Your task to perform on an android device: Open Google Maps Image 0: 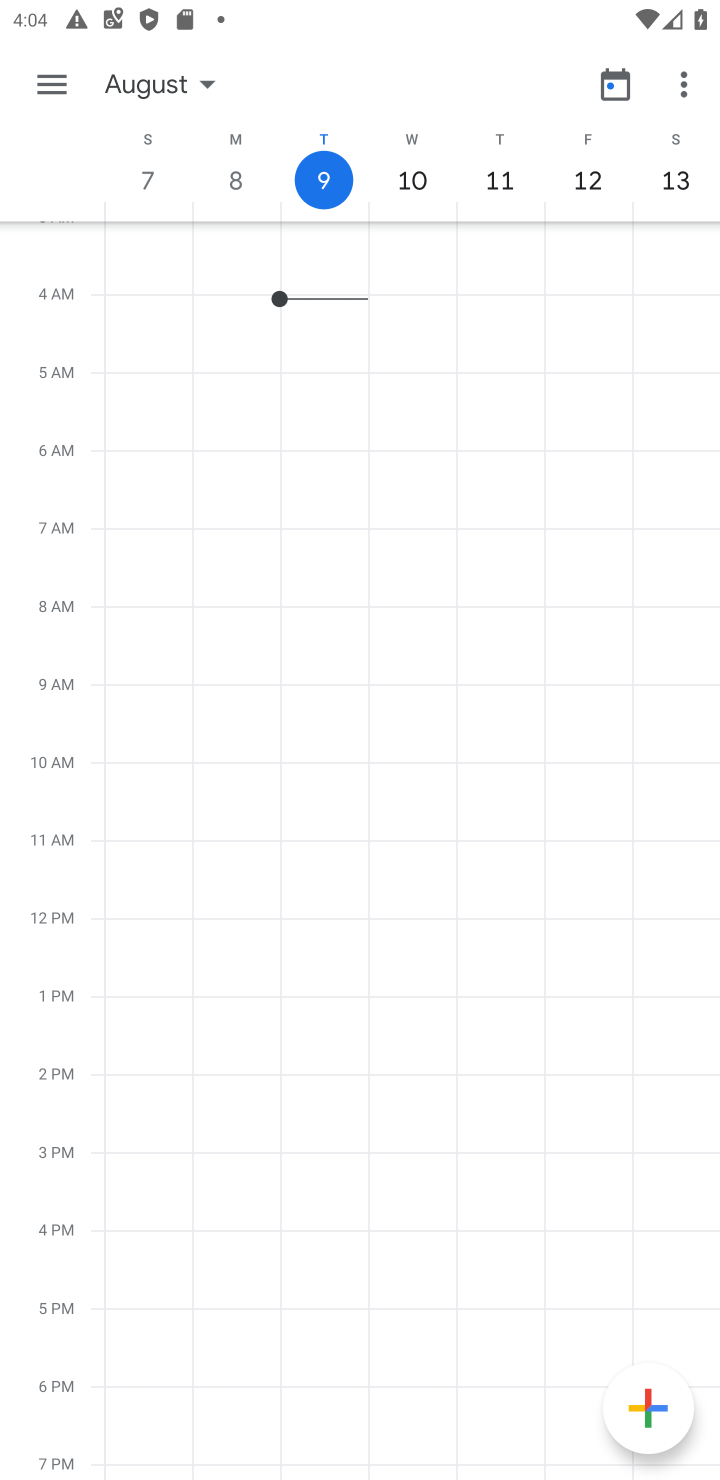
Step 0: press home button
Your task to perform on an android device: Open Google Maps Image 1: 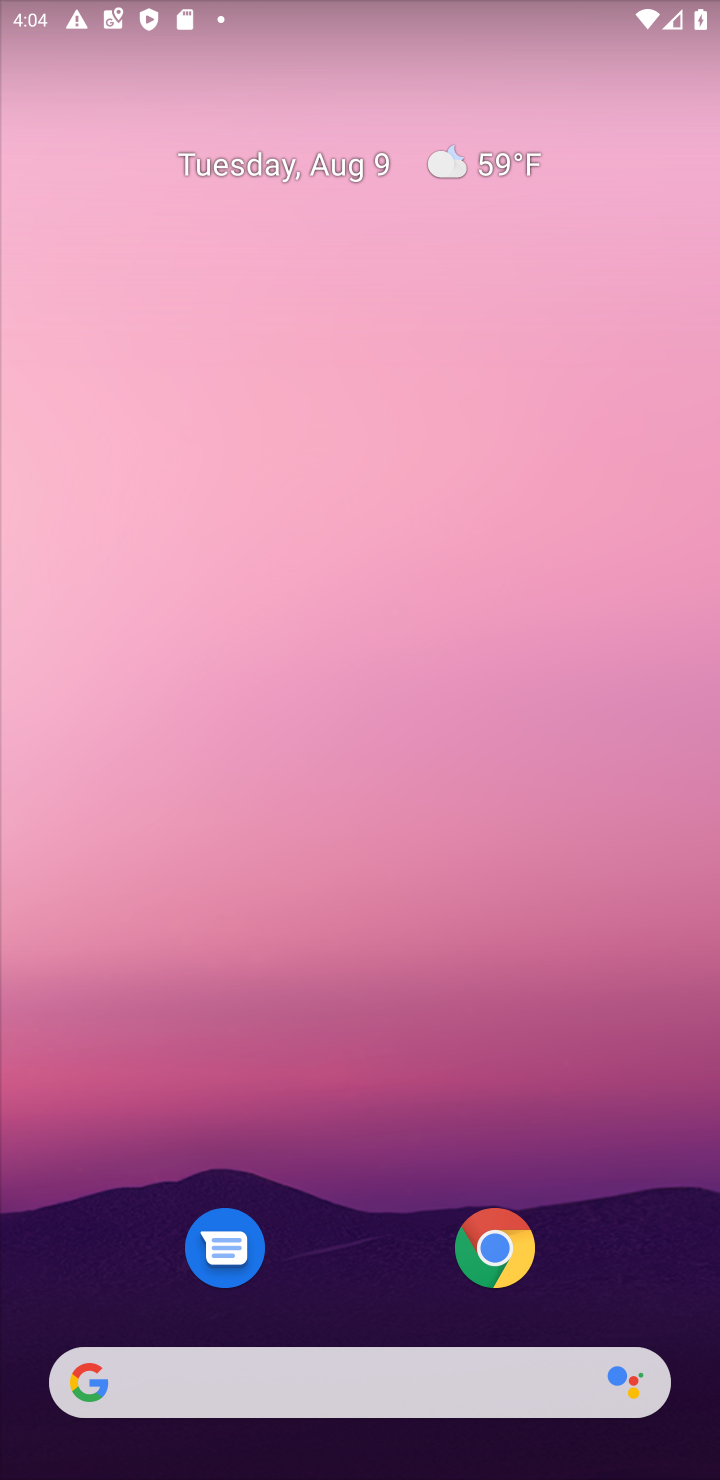
Step 1: drag from (323, 1154) to (31, 242)
Your task to perform on an android device: Open Google Maps Image 2: 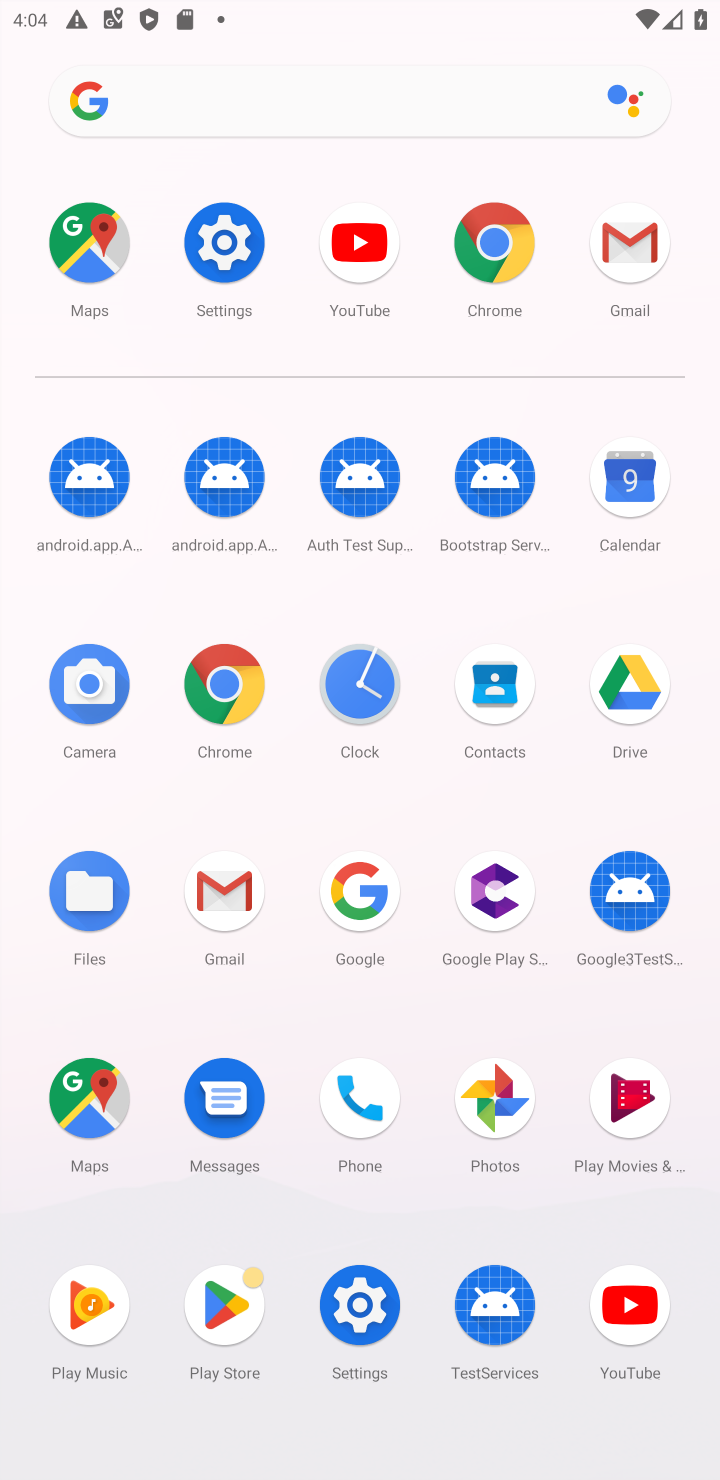
Step 2: click (95, 1113)
Your task to perform on an android device: Open Google Maps Image 3: 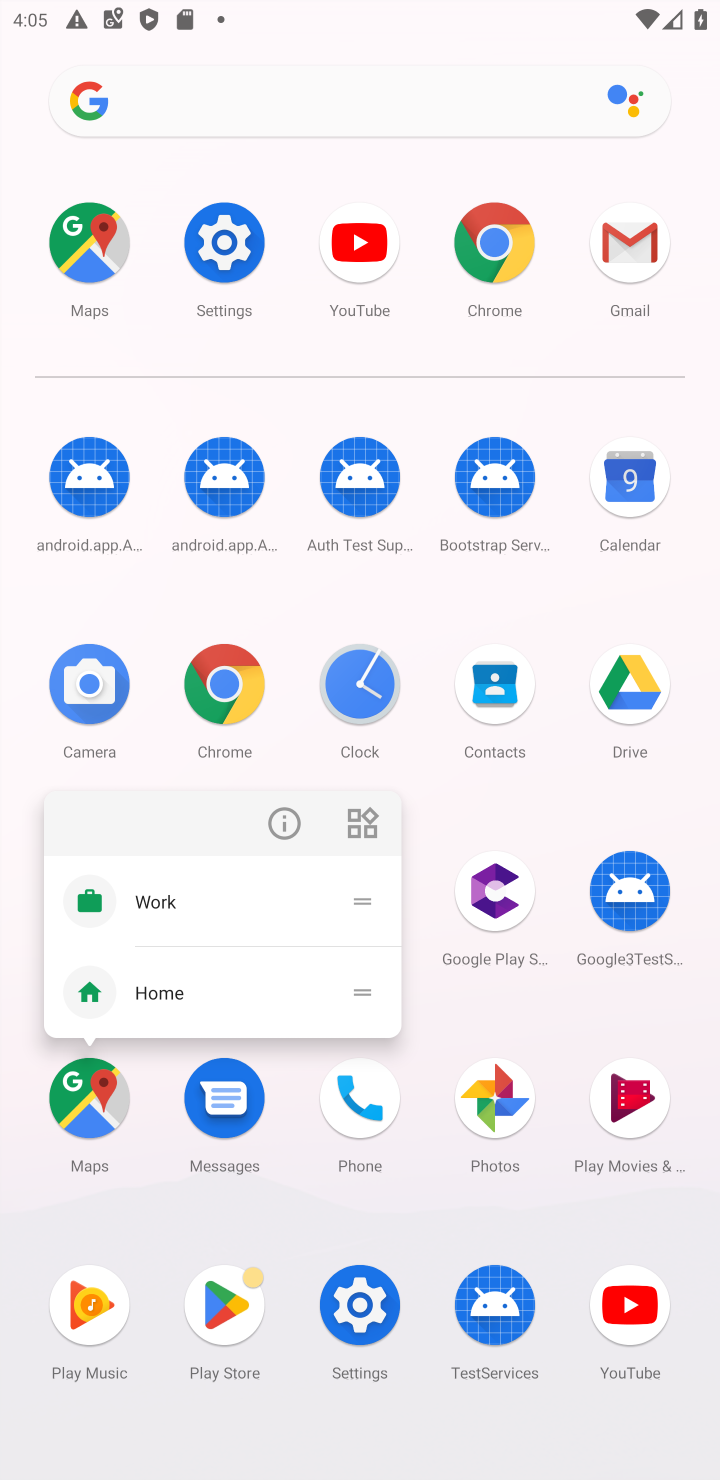
Step 3: click (74, 1098)
Your task to perform on an android device: Open Google Maps Image 4: 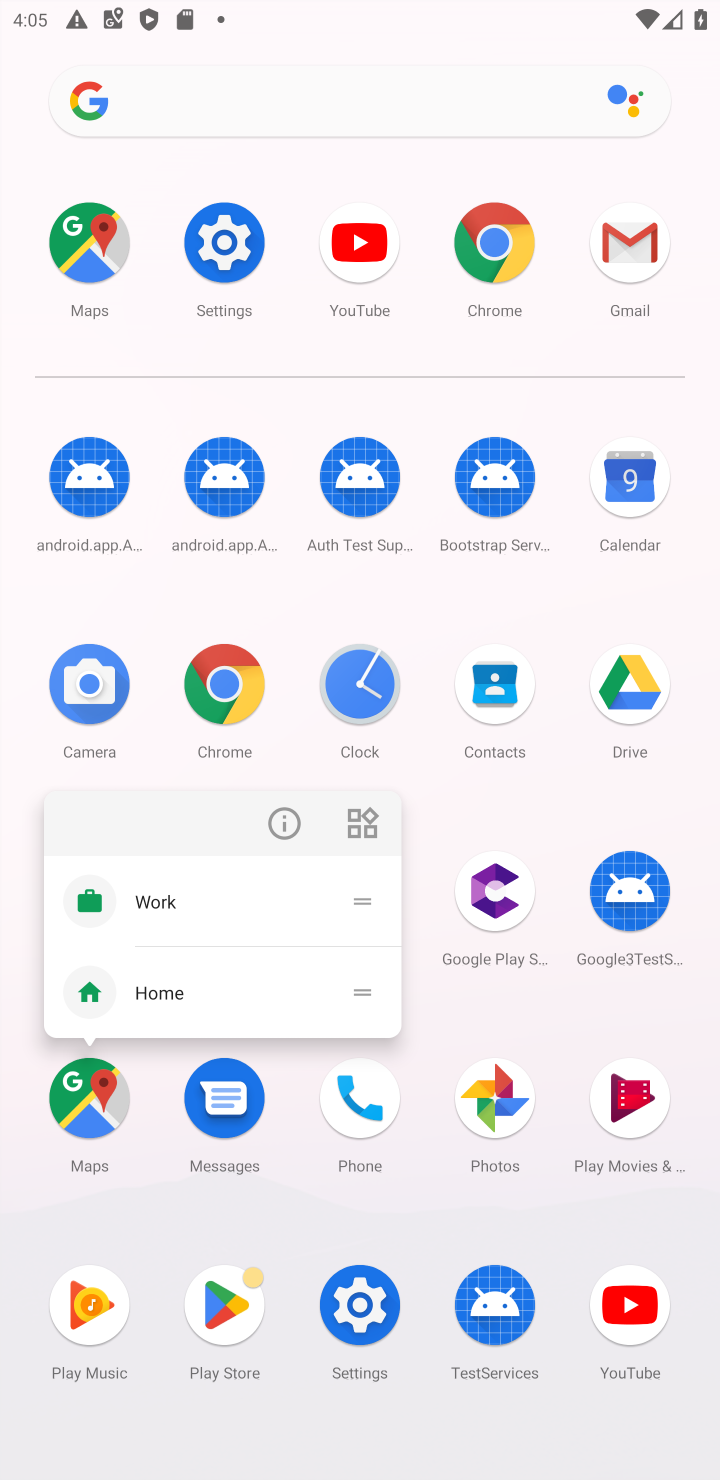
Step 4: click (162, 1206)
Your task to perform on an android device: Open Google Maps Image 5: 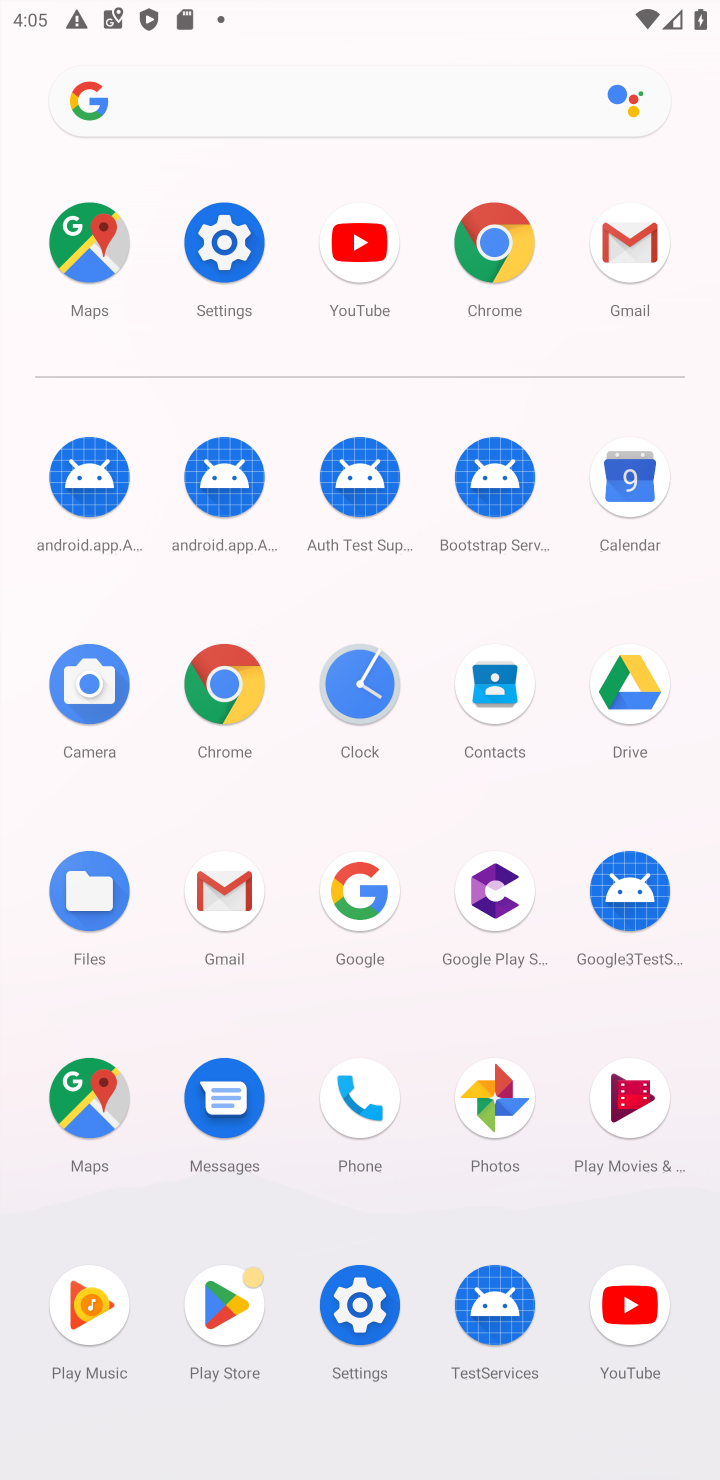
Step 5: click (88, 1106)
Your task to perform on an android device: Open Google Maps Image 6: 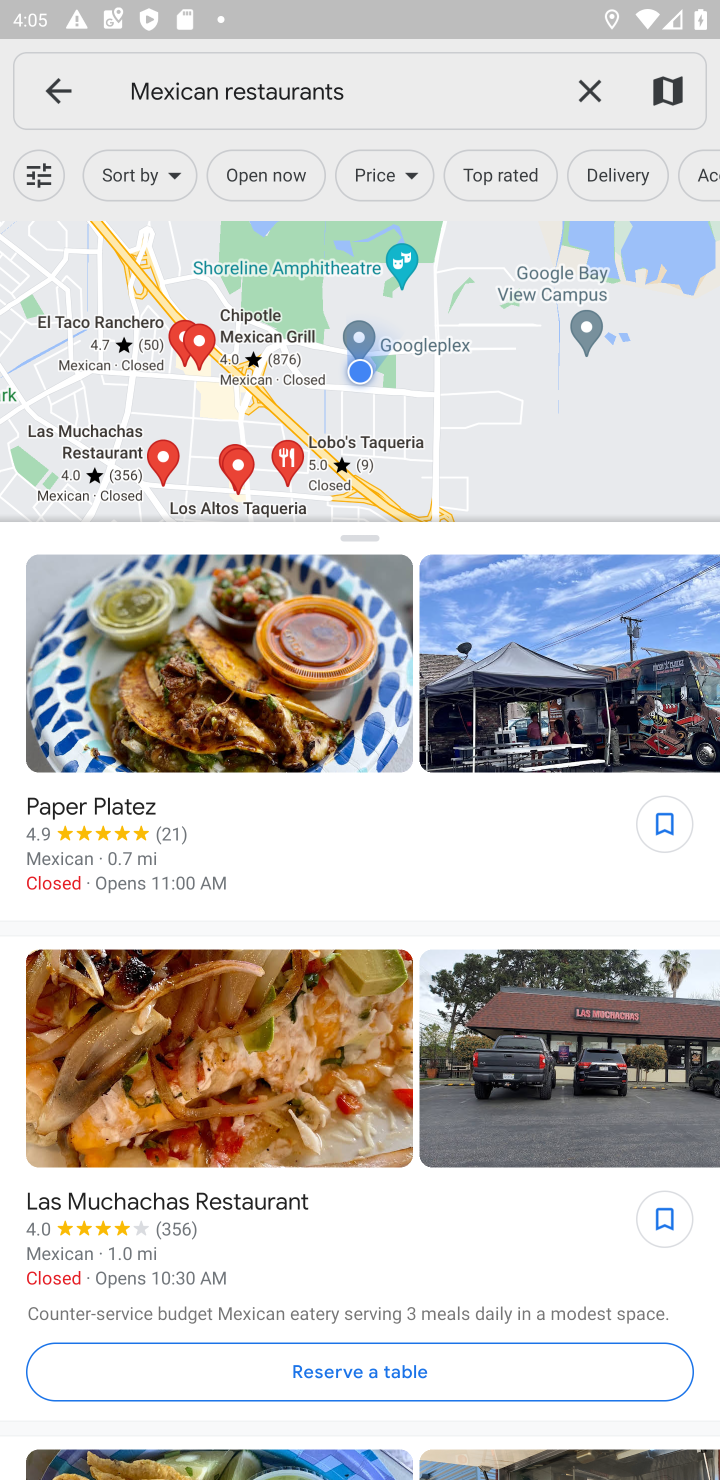
Step 6: task complete